Your task to perform on an android device: Go to calendar. Show me events next week Image 0: 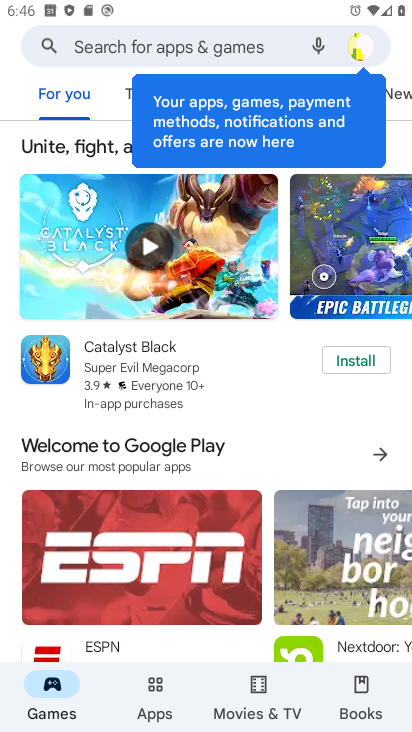
Step 0: press home button
Your task to perform on an android device: Go to calendar. Show me events next week Image 1: 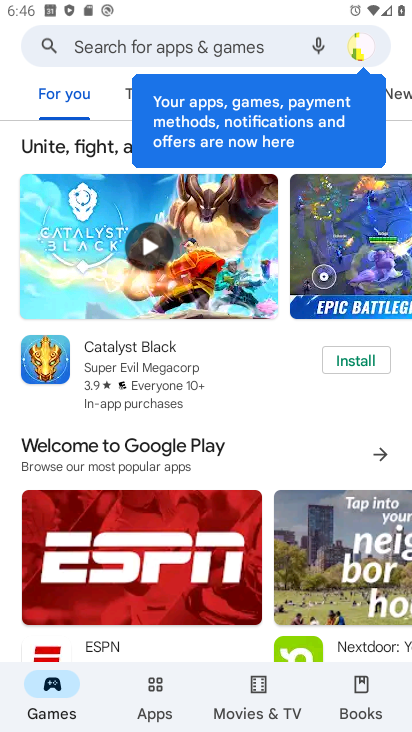
Step 1: drag from (237, 636) to (195, 66)
Your task to perform on an android device: Go to calendar. Show me events next week Image 2: 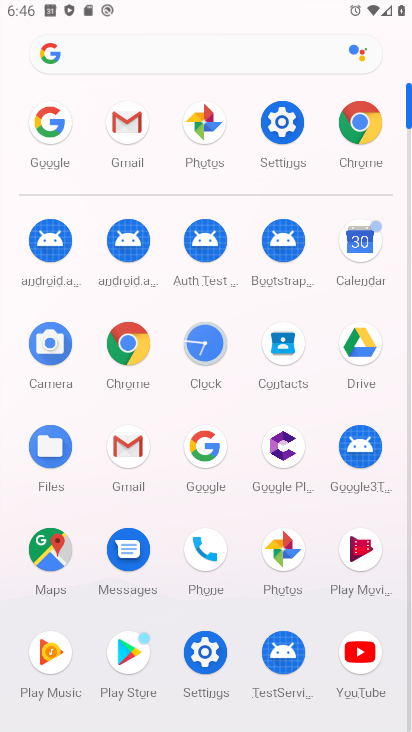
Step 2: click (346, 249)
Your task to perform on an android device: Go to calendar. Show me events next week Image 3: 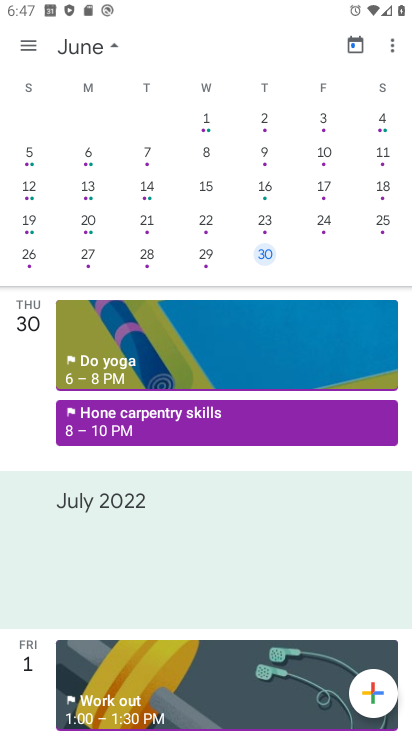
Step 3: task complete